Your task to perform on an android device: Open the web browser Image 0: 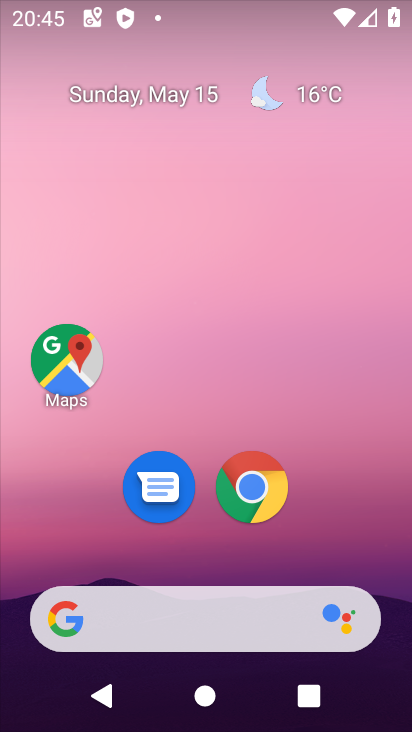
Step 0: click (253, 492)
Your task to perform on an android device: Open the web browser Image 1: 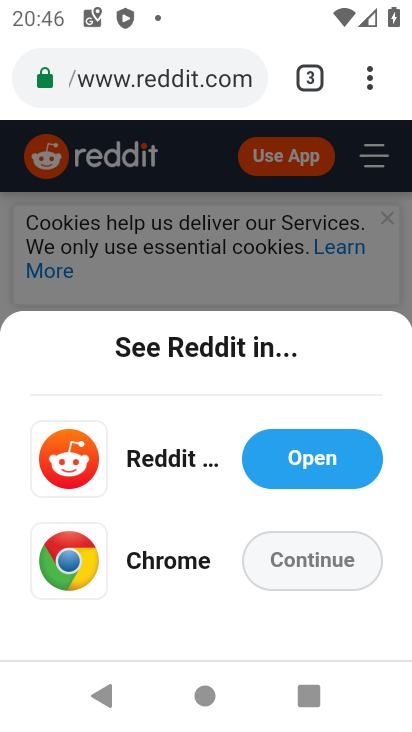
Step 1: click (280, 565)
Your task to perform on an android device: Open the web browser Image 2: 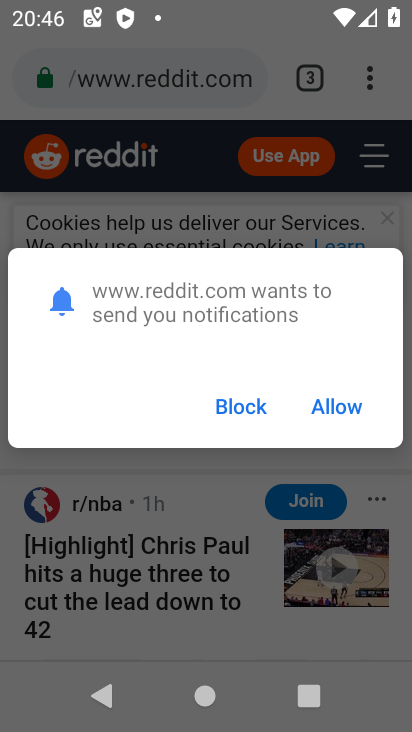
Step 2: click (328, 402)
Your task to perform on an android device: Open the web browser Image 3: 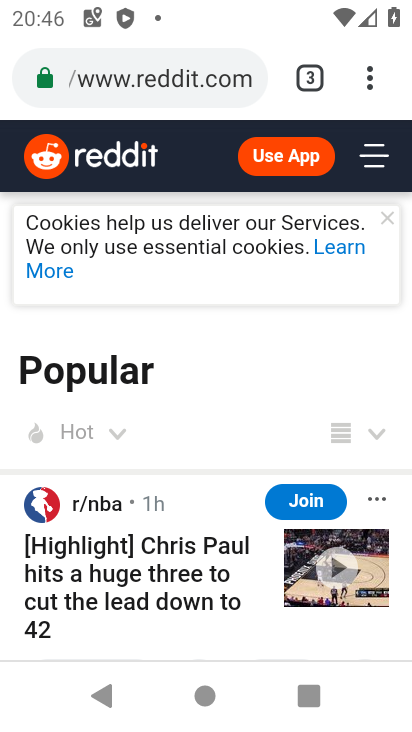
Step 3: task complete